Your task to perform on an android device: set an alarm Image 0: 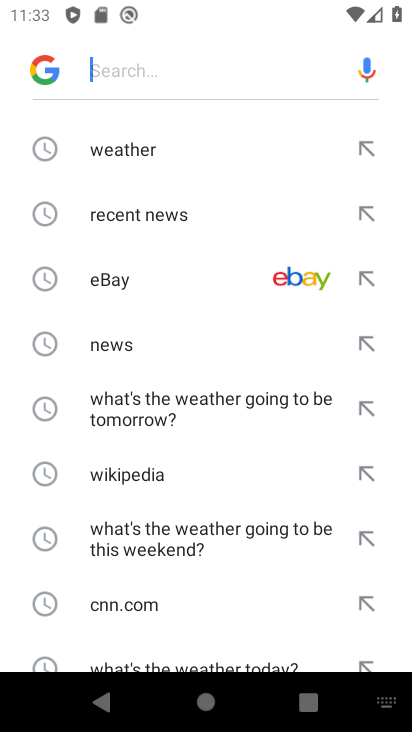
Step 0: press home button
Your task to perform on an android device: set an alarm Image 1: 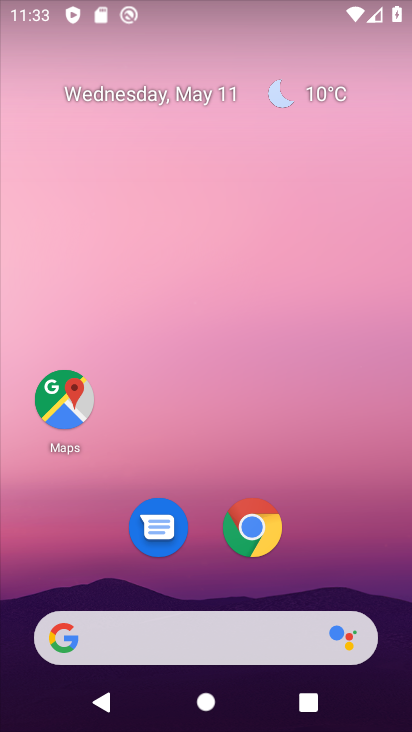
Step 1: drag from (193, 565) to (198, 44)
Your task to perform on an android device: set an alarm Image 2: 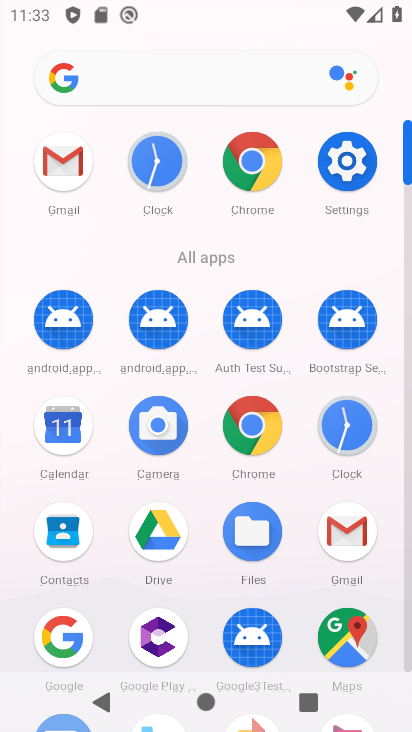
Step 2: click (346, 447)
Your task to perform on an android device: set an alarm Image 3: 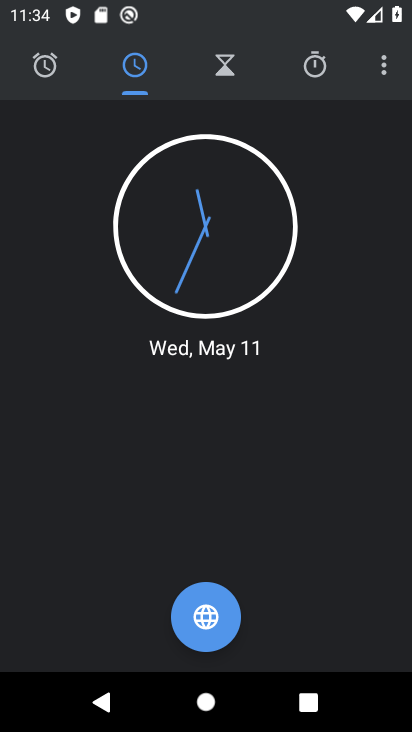
Step 3: click (57, 48)
Your task to perform on an android device: set an alarm Image 4: 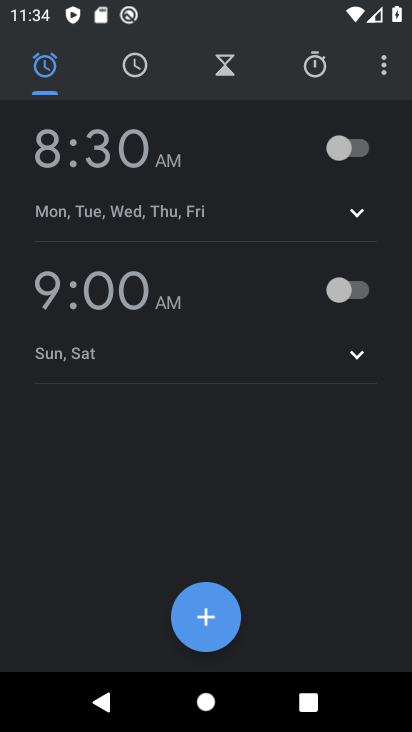
Step 4: click (355, 159)
Your task to perform on an android device: set an alarm Image 5: 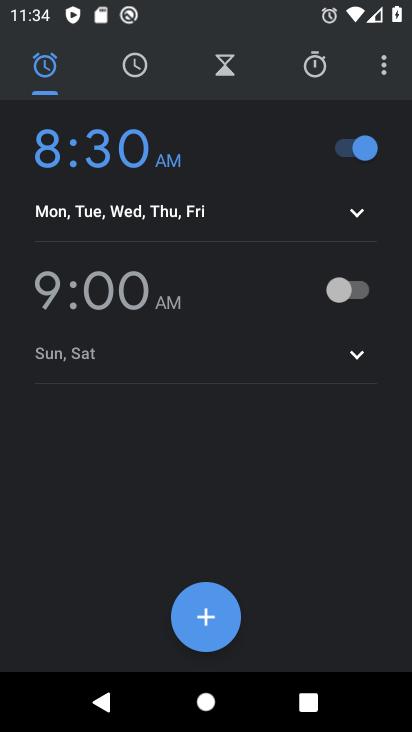
Step 5: task complete